Your task to perform on an android device: Open ESPN.com Image 0: 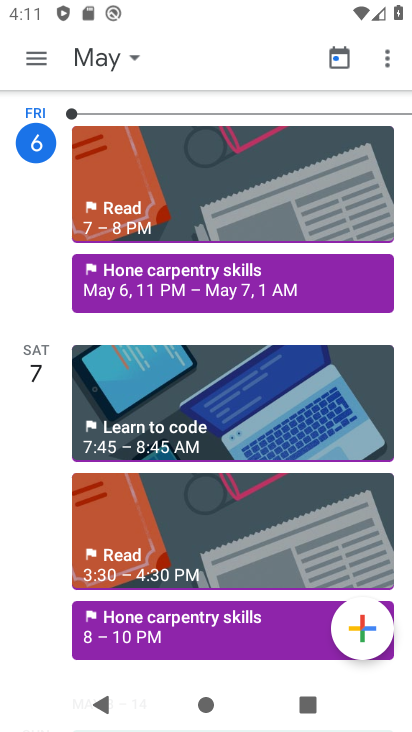
Step 0: press home button
Your task to perform on an android device: Open ESPN.com Image 1: 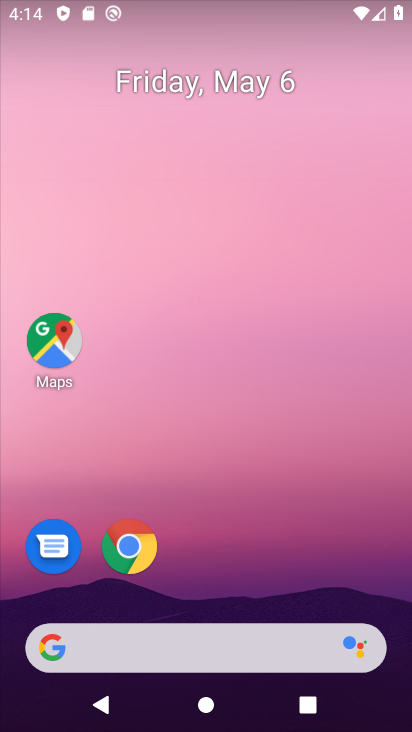
Step 1: drag from (211, 577) to (237, 143)
Your task to perform on an android device: Open ESPN.com Image 2: 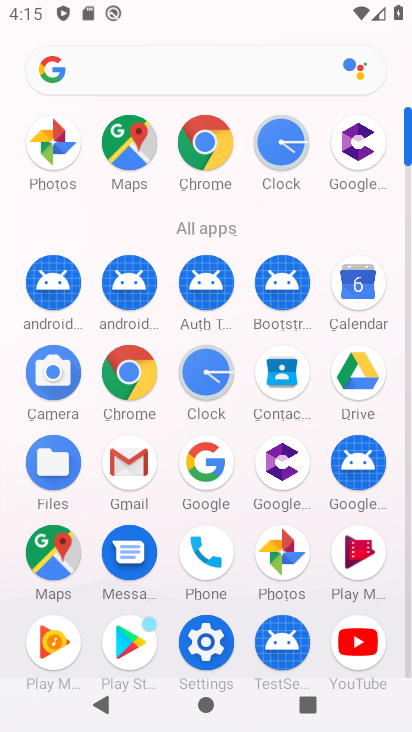
Step 2: click (215, 161)
Your task to perform on an android device: Open ESPN.com Image 3: 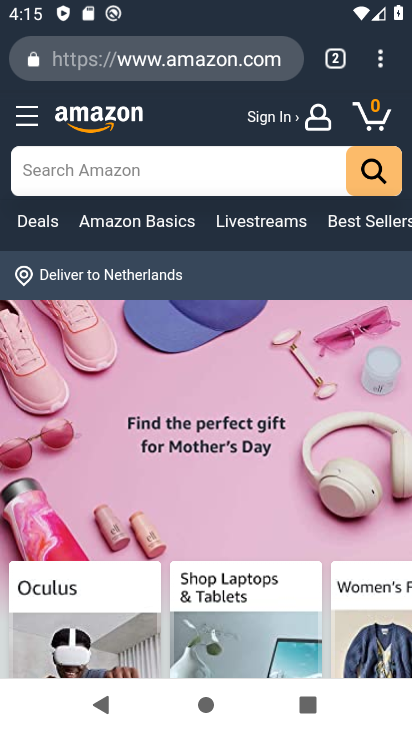
Step 3: click (326, 61)
Your task to perform on an android device: Open ESPN.com Image 4: 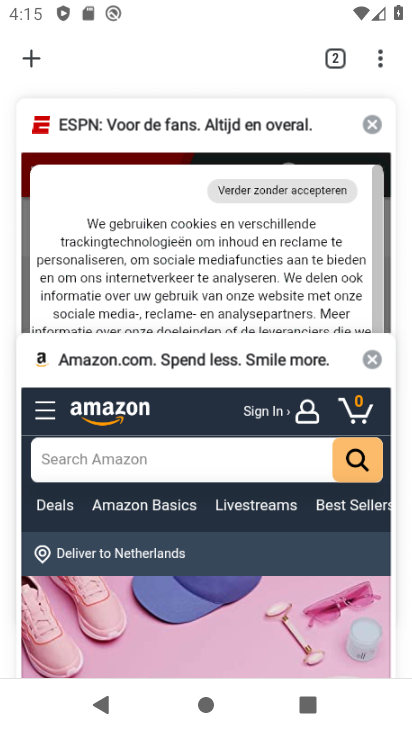
Step 4: click (96, 187)
Your task to perform on an android device: Open ESPN.com Image 5: 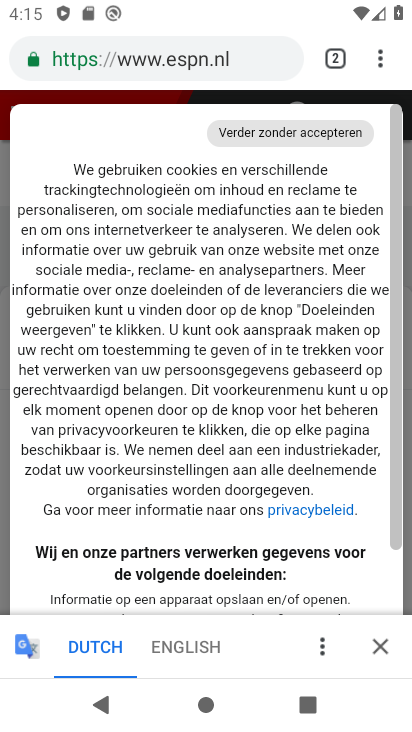
Step 5: task complete